Your task to perform on an android device: Open sound settings Image 0: 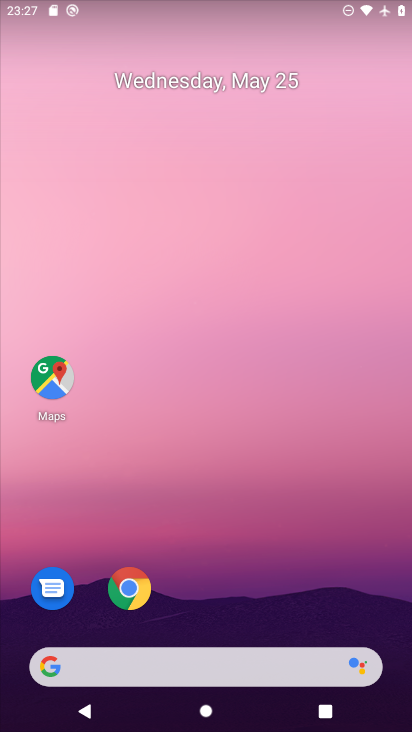
Step 0: drag from (260, 561) to (271, 88)
Your task to perform on an android device: Open sound settings Image 1: 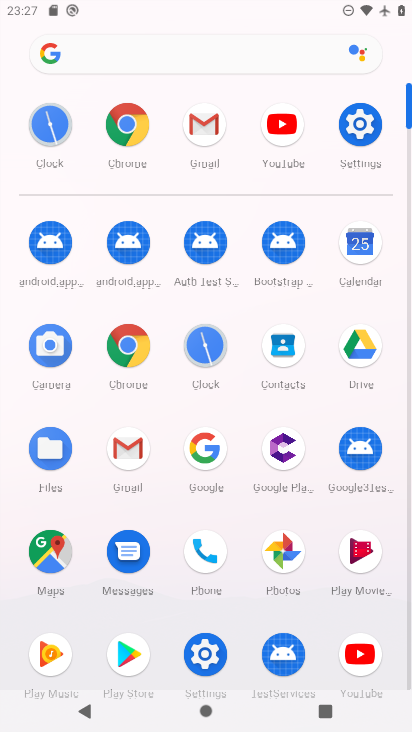
Step 1: click (363, 121)
Your task to perform on an android device: Open sound settings Image 2: 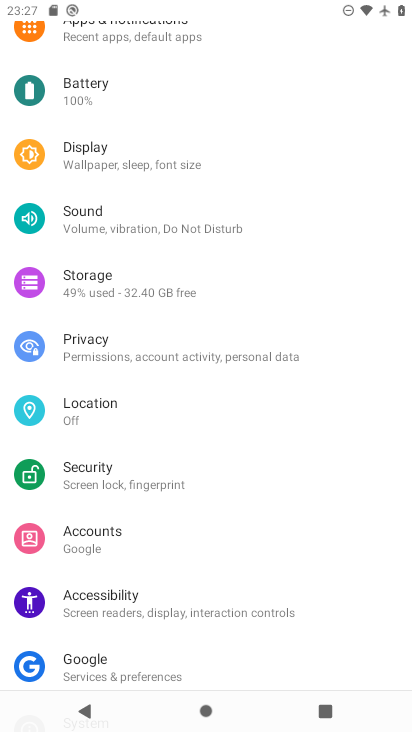
Step 2: click (104, 222)
Your task to perform on an android device: Open sound settings Image 3: 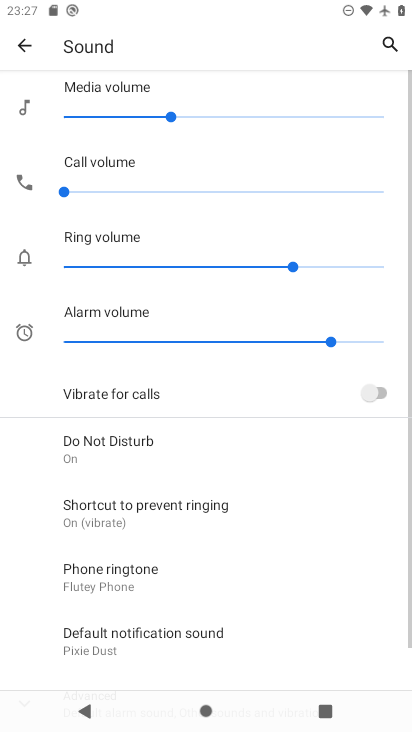
Step 3: task complete